Your task to perform on an android device: Open the stopwatch Image 0: 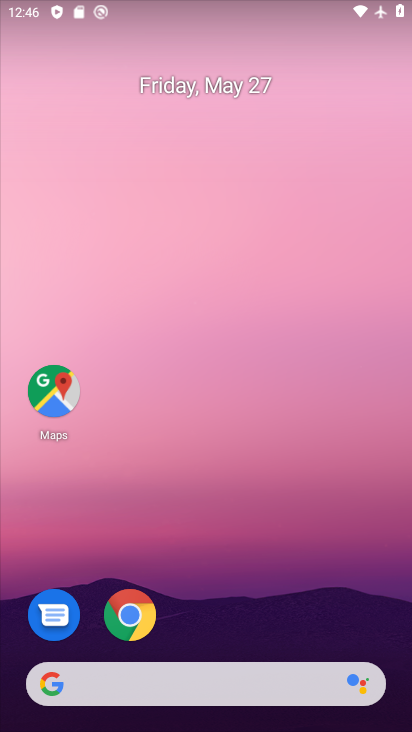
Step 0: press home button
Your task to perform on an android device: Open the stopwatch Image 1: 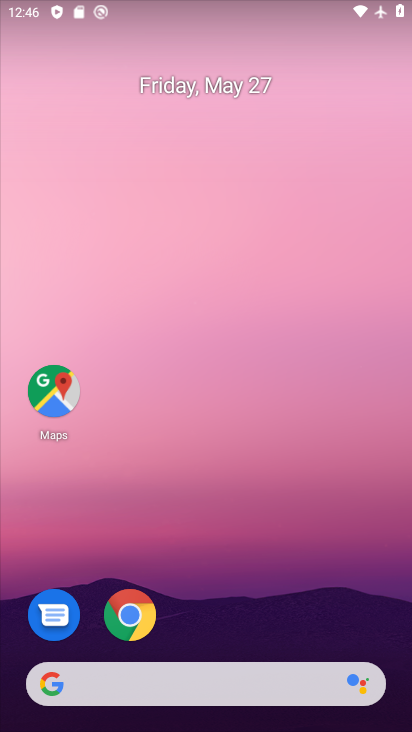
Step 1: drag from (254, 641) to (263, 159)
Your task to perform on an android device: Open the stopwatch Image 2: 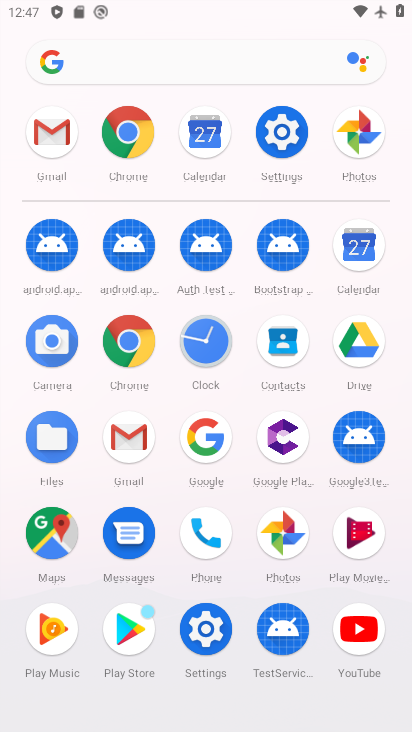
Step 2: click (199, 352)
Your task to perform on an android device: Open the stopwatch Image 3: 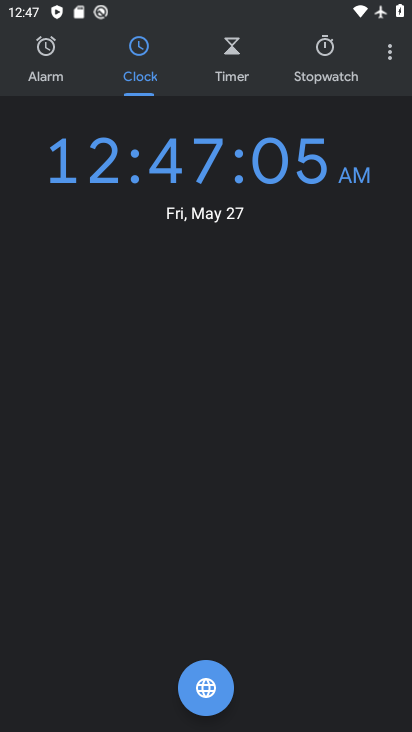
Step 3: click (330, 59)
Your task to perform on an android device: Open the stopwatch Image 4: 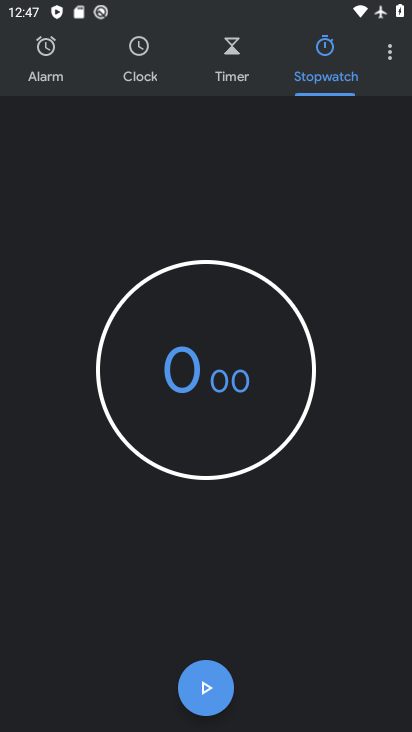
Step 4: task complete